Your task to perform on an android device: turn smart compose on in the gmail app Image 0: 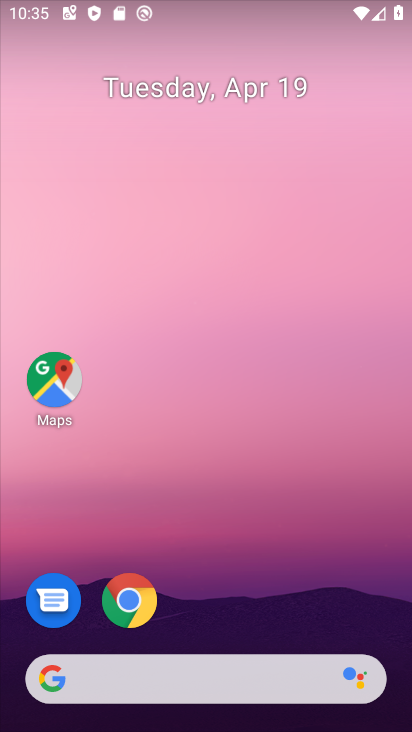
Step 0: drag from (226, 546) to (378, 11)
Your task to perform on an android device: turn smart compose on in the gmail app Image 1: 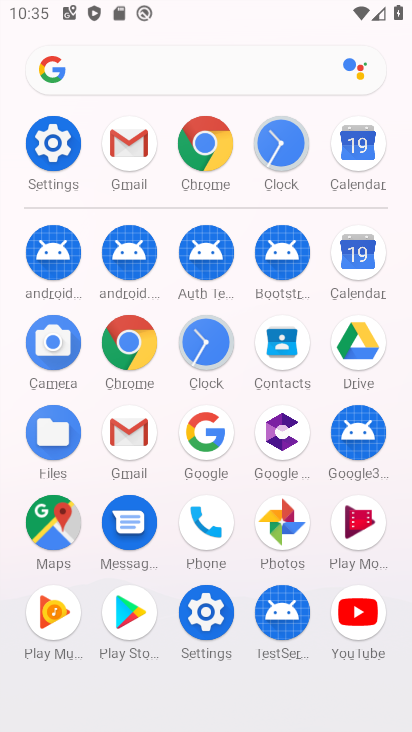
Step 1: click (127, 432)
Your task to perform on an android device: turn smart compose on in the gmail app Image 2: 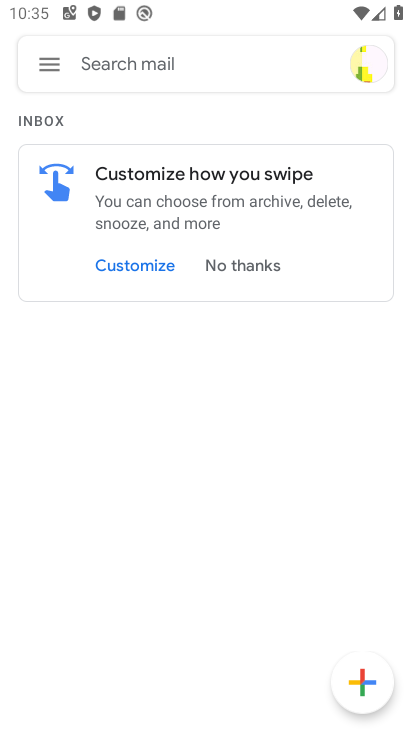
Step 2: click (39, 60)
Your task to perform on an android device: turn smart compose on in the gmail app Image 3: 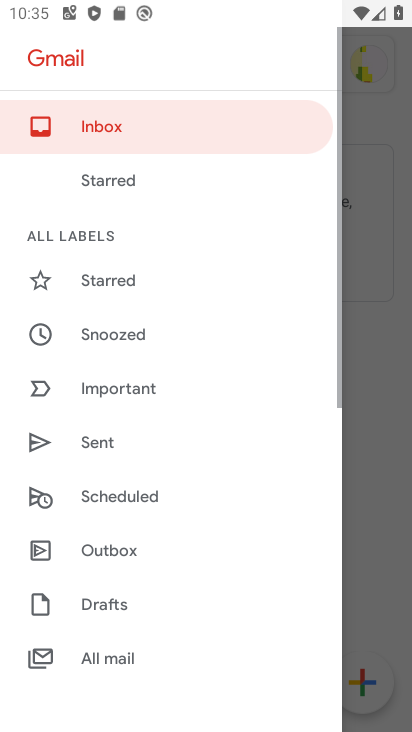
Step 3: drag from (92, 621) to (191, 121)
Your task to perform on an android device: turn smart compose on in the gmail app Image 4: 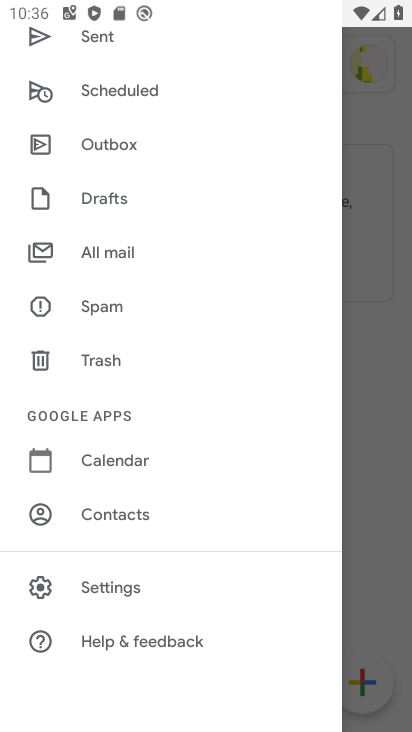
Step 4: click (100, 590)
Your task to perform on an android device: turn smart compose on in the gmail app Image 5: 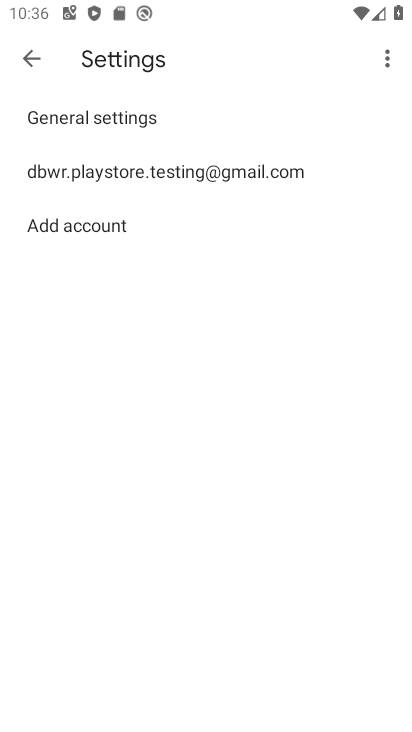
Step 5: click (154, 165)
Your task to perform on an android device: turn smart compose on in the gmail app Image 6: 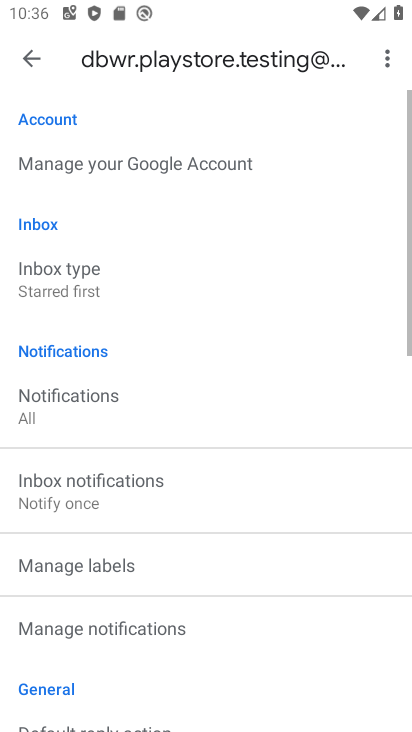
Step 6: task complete